Your task to perform on an android device: What's the weather today? Image 0: 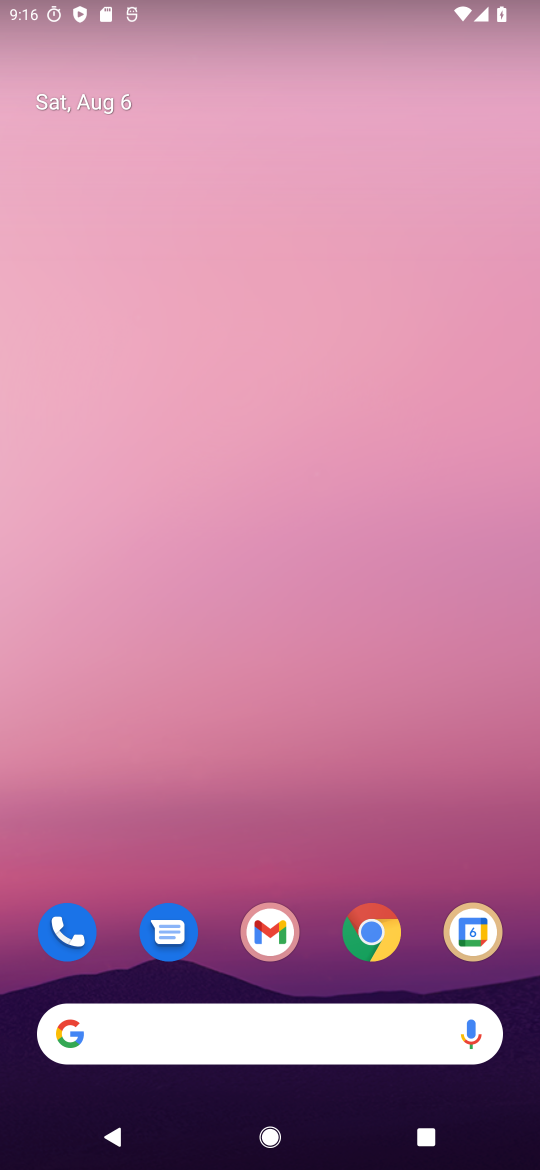
Step 0: click (197, 1017)
Your task to perform on an android device: What's the weather today? Image 1: 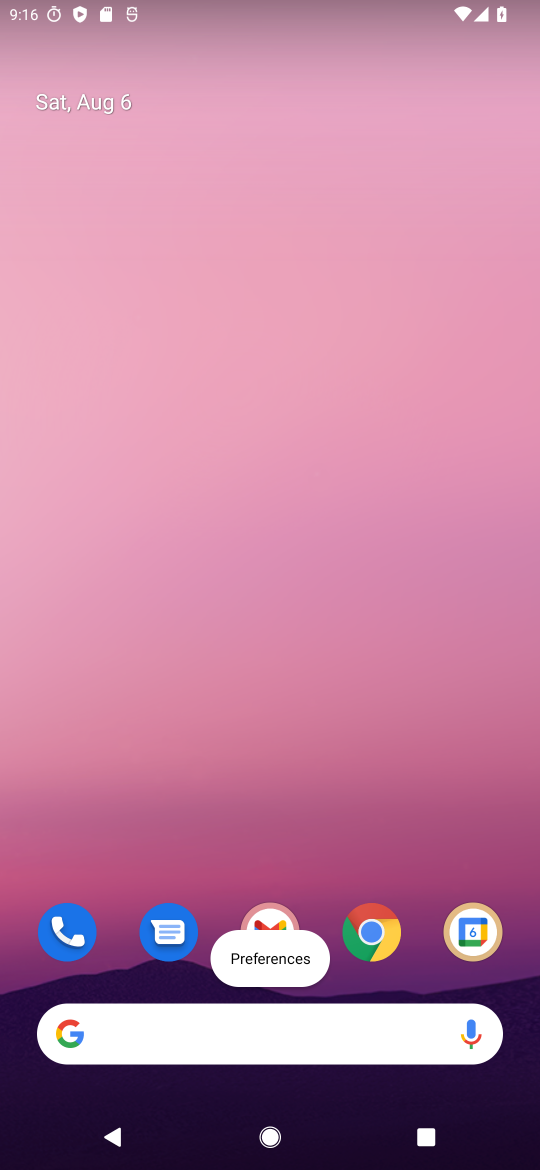
Step 1: click (191, 1024)
Your task to perform on an android device: What's the weather today? Image 2: 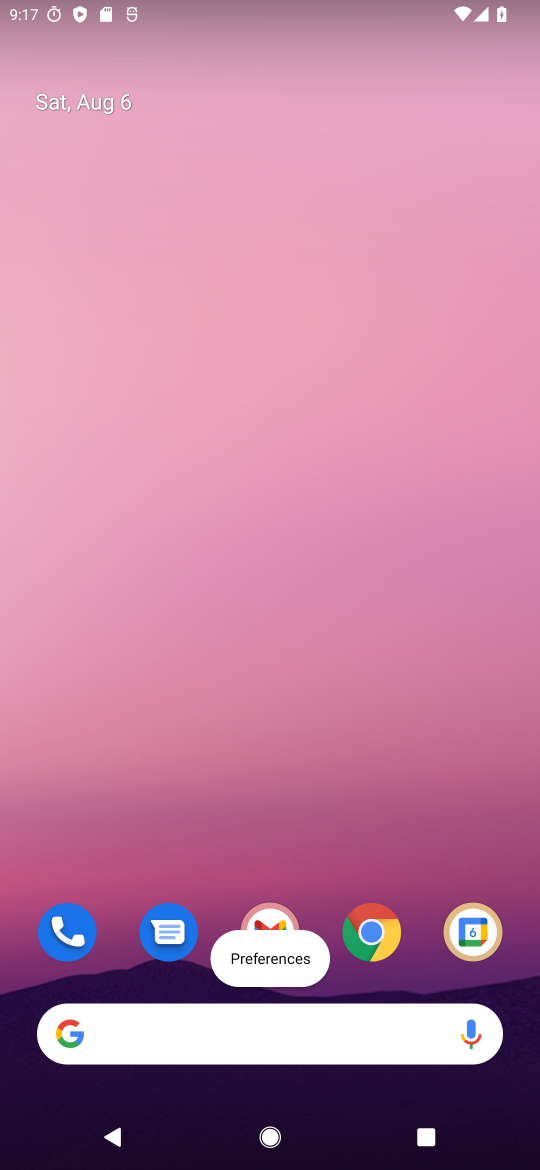
Step 2: click (205, 1021)
Your task to perform on an android device: What's the weather today? Image 3: 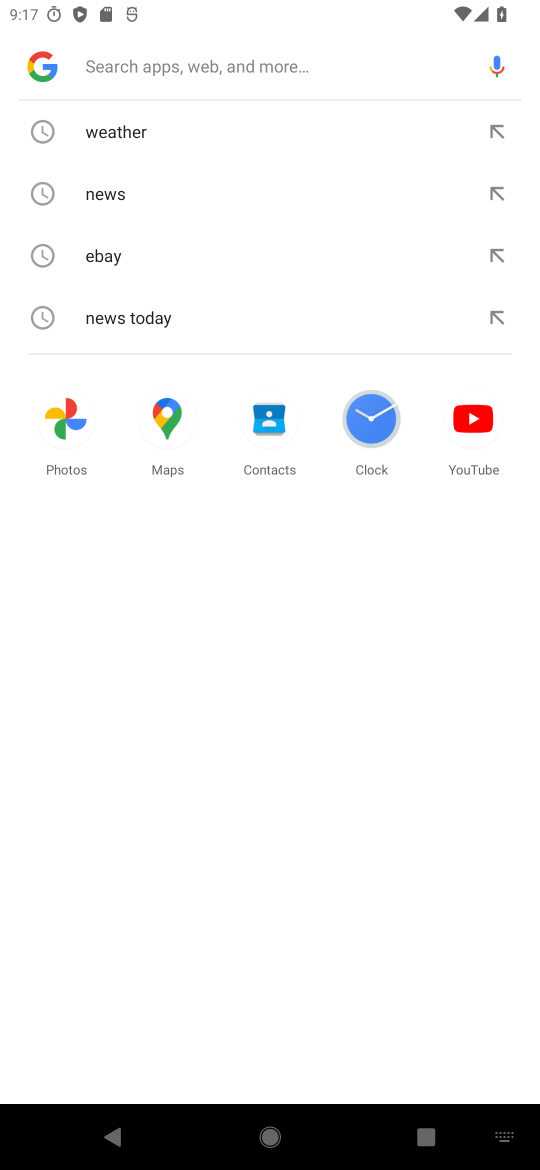
Step 3: click (148, 133)
Your task to perform on an android device: What's the weather today? Image 4: 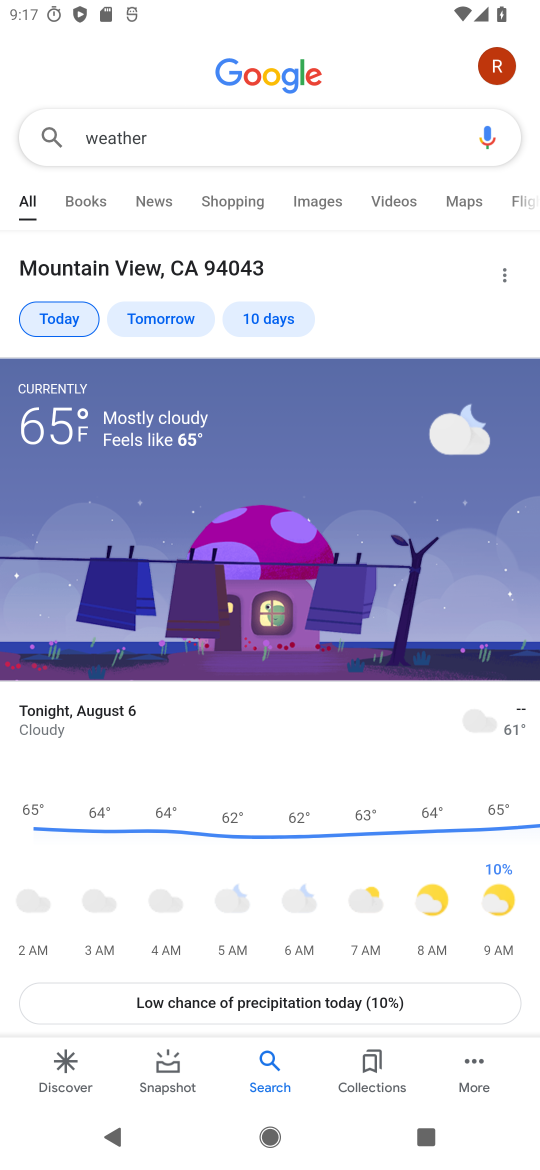
Step 4: task complete